Your task to perform on an android device: What is the recent news? Image 0: 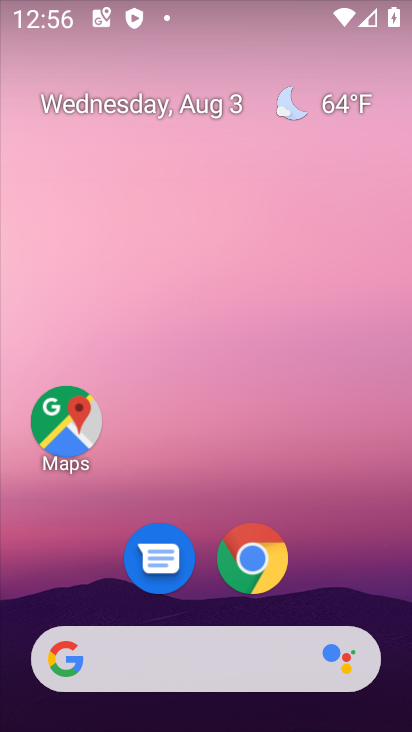
Step 0: drag from (6, 318) to (411, 297)
Your task to perform on an android device: What is the recent news? Image 1: 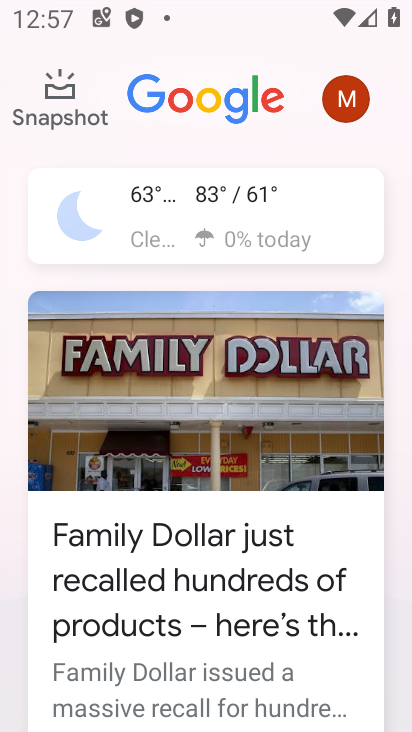
Step 1: task complete